Your task to perform on an android device: delete a single message in the gmail app Image 0: 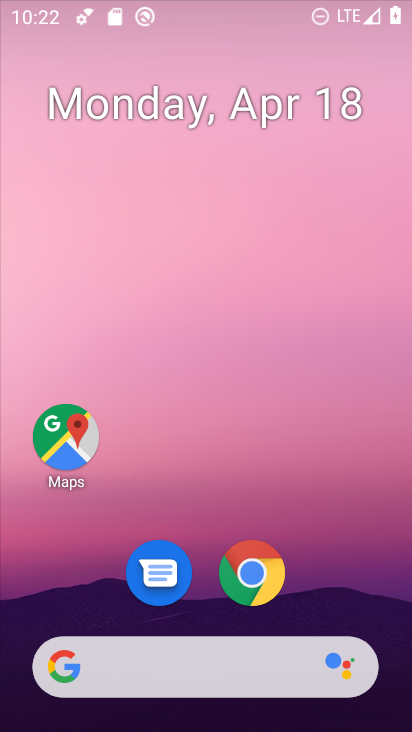
Step 0: drag from (363, 593) to (183, 18)
Your task to perform on an android device: delete a single message in the gmail app Image 1: 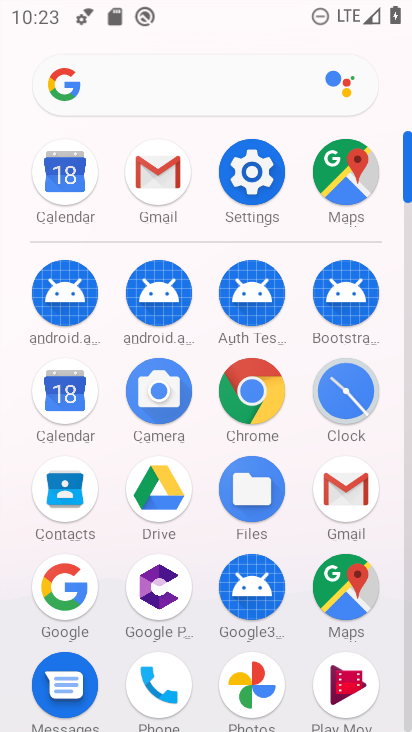
Step 1: click (353, 480)
Your task to perform on an android device: delete a single message in the gmail app Image 2: 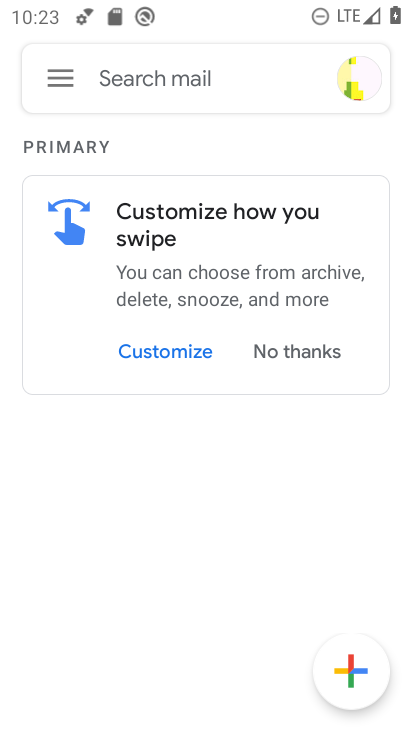
Step 2: task complete